Your task to perform on an android device: What's on my calendar today? Image 0: 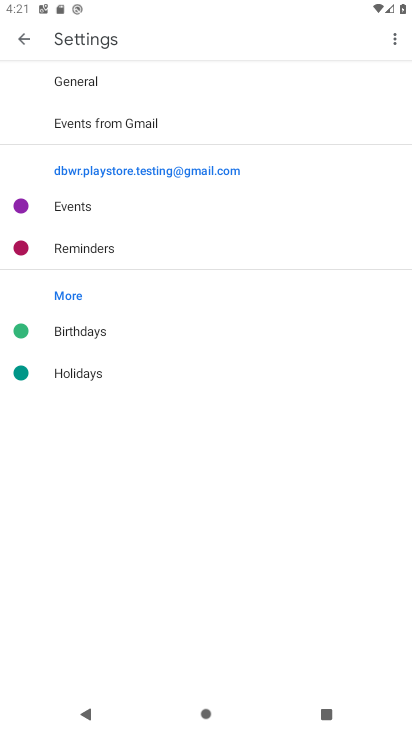
Step 0: press home button
Your task to perform on an android device: What's on my calendar today? Image 1: 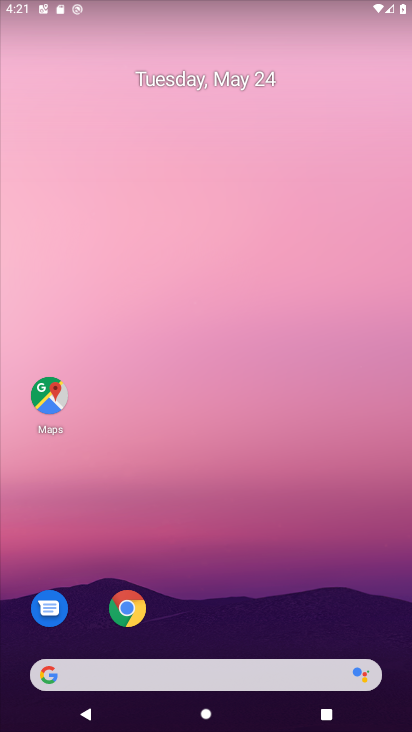
Step 1: drag from (198, 523) to (198, 217)
Your task to perform on an android device: What's on my calendar today? Image 2: 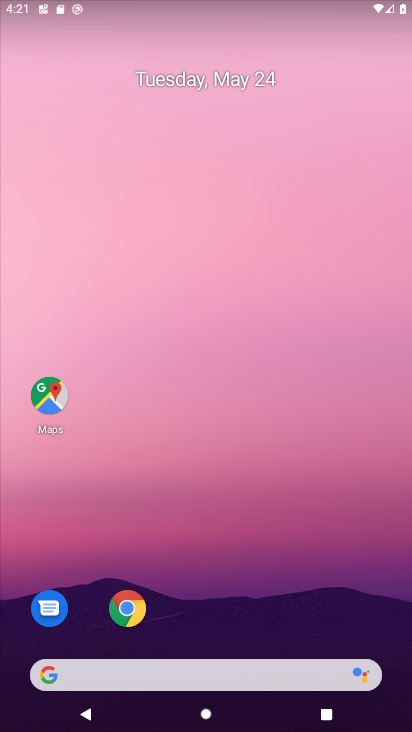
Step 2: drag from (170, 663) to (167, 247)
Your task to perform on an android device: What's on my calendar today? Image 3: 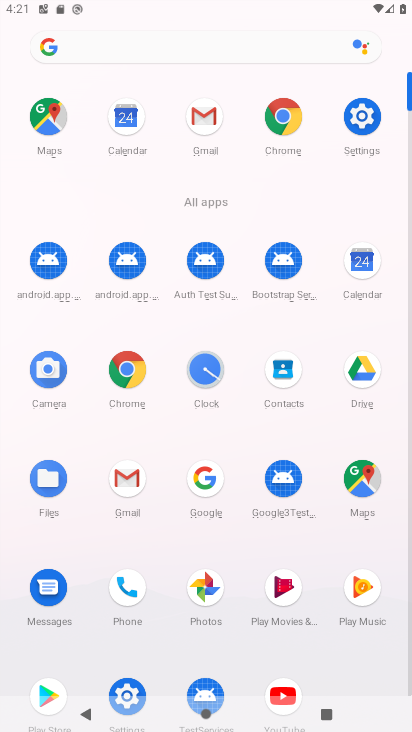
Step 3: click (365, 264)
Your task to perform on an android device: What's on my calendar today? Image 4: 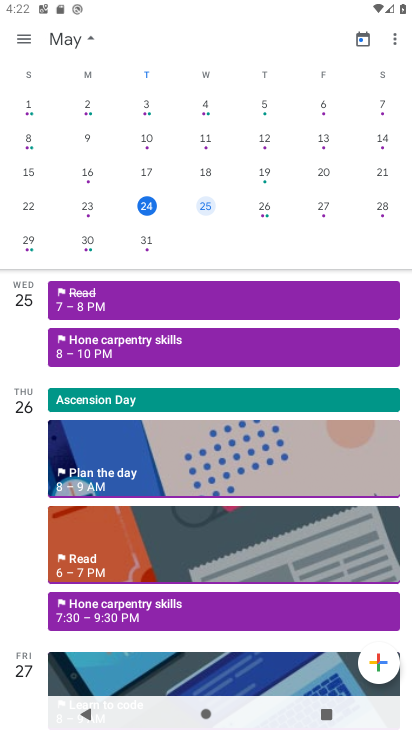
Step 4: task complete